Your task to perform on an android device: Do I have any events today? Image 0: 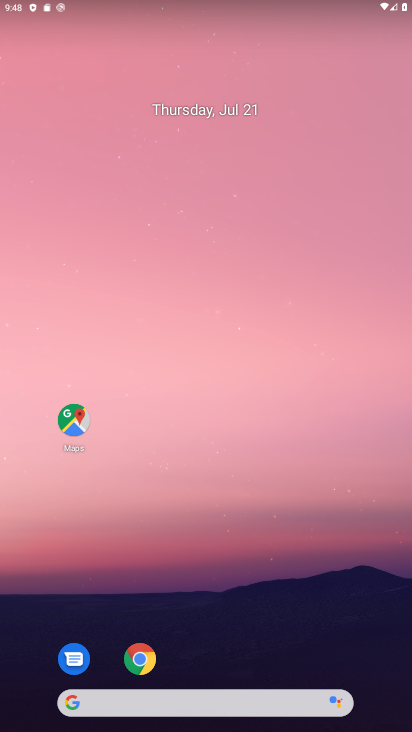
Step 0: drag from (235, 700) to (232, 175)
Your task to perform on an android device: Do I have any events today? Image 1: 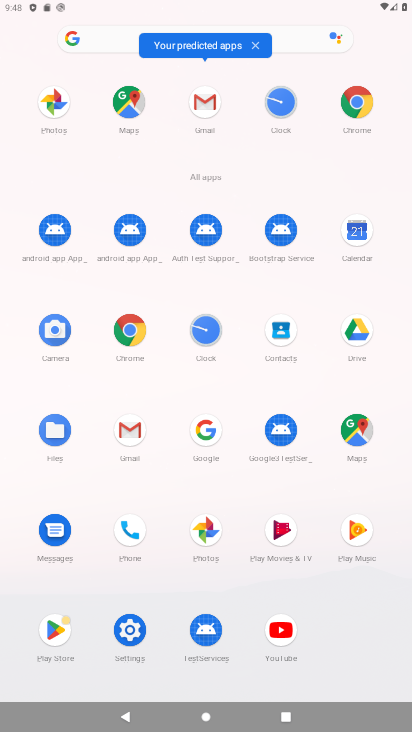
Step 1: click (347, 225)
Your task to perform on an android device: Do I have any events today? Image 2: 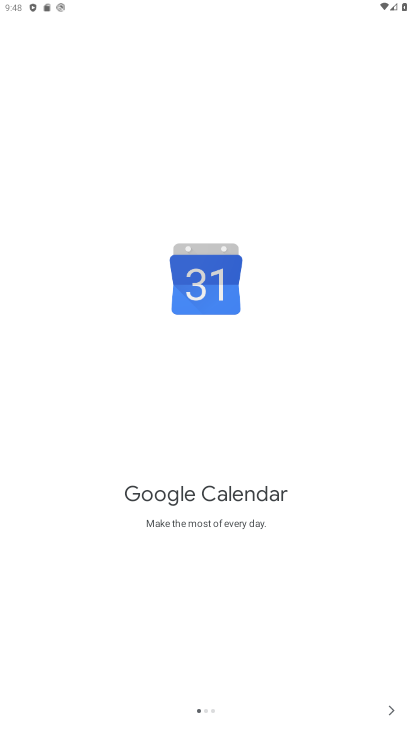
Step 2: click (390, 709)
Your task to perform on an android device: Do I have any events today? Image 3: 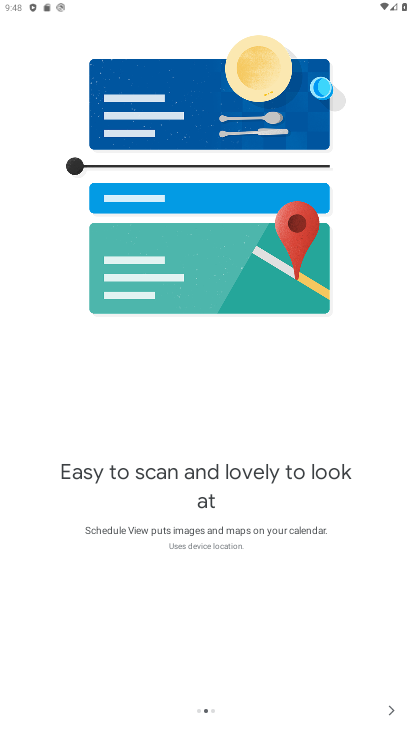
Step 3: click (390, 709)
Your task to perform on an android device: Do I have any events today? Image 4: 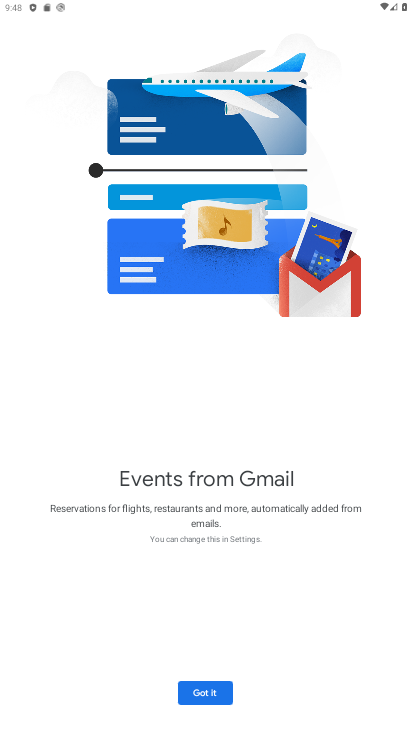
Step 4: click (217, 684)
Your task to perform on an android device: Do I have any events today? Image 5: 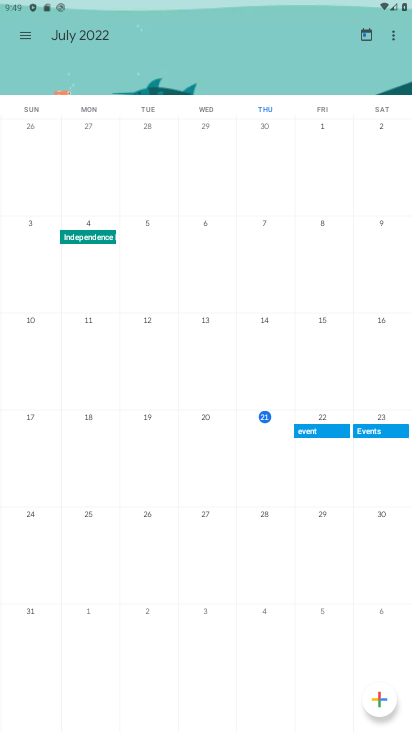
Step 5: click (323, 426)
Your task to perform on an android device: Do I have any events today? Image 6: 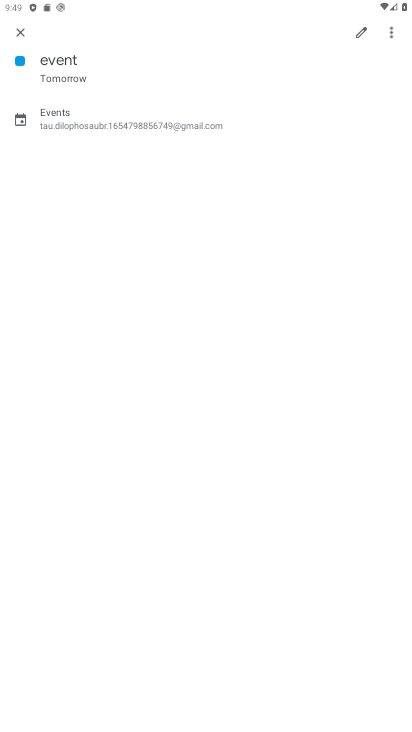
Step 6: click (20, 29)
Your task to perform on an android device: Do I have any events today? Image 7: 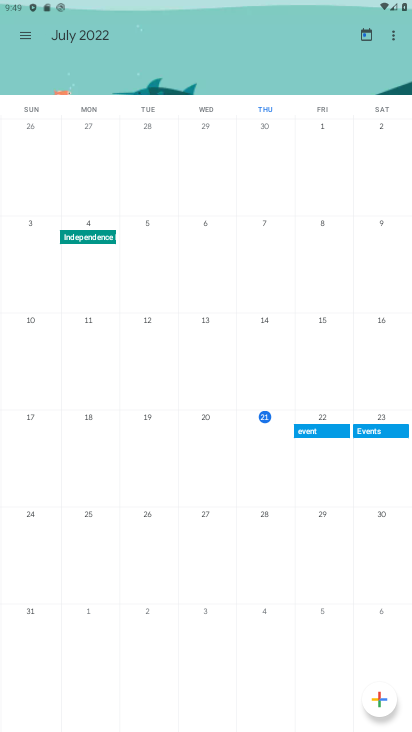
Step 7: click (259, 420)
Your task to perform on an android device: Do I have any events today? Image 8: 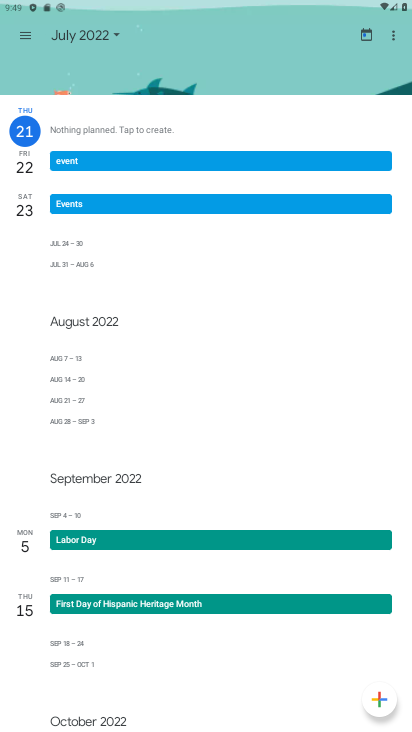
Step 8: task complete